Your task to perform on an android device: turn on the 24-hour format for clock Image 0: 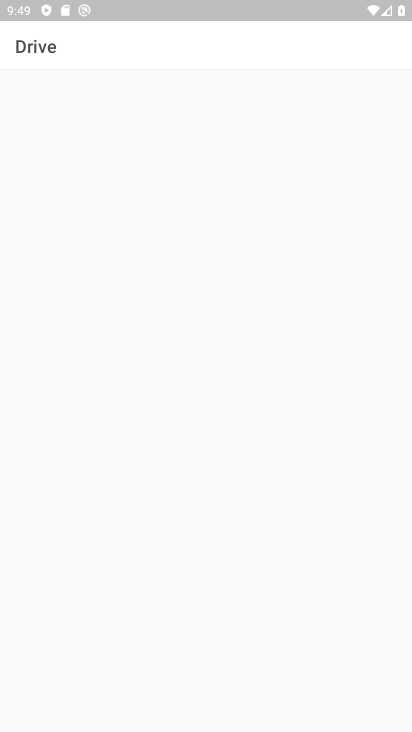
Step 0: press home button
Your task to perform on an android device: turn on the 24-hour format for clock Image 1: 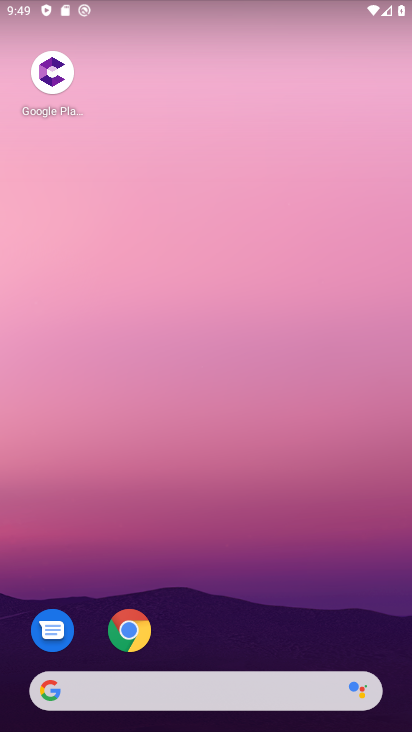
Step 1: drag from (236, 652) to (187, 126)
Your task to perform on an android device: turn on the 24-hour format for clock Image 2: 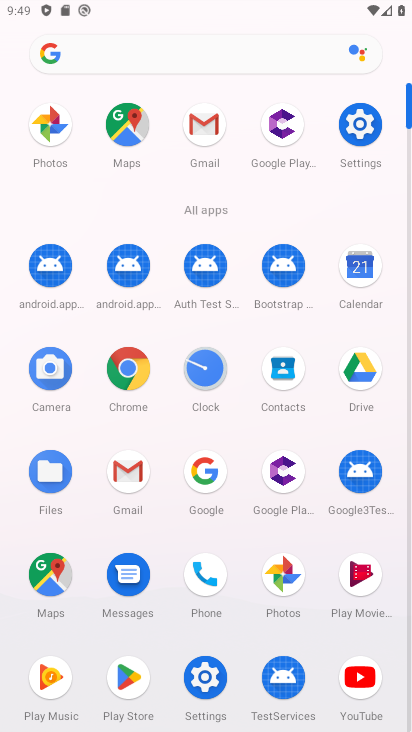
Step 2: click (216, 369)
Your task to perform on an android device: turn on the 24-hour format for clock Image 3: 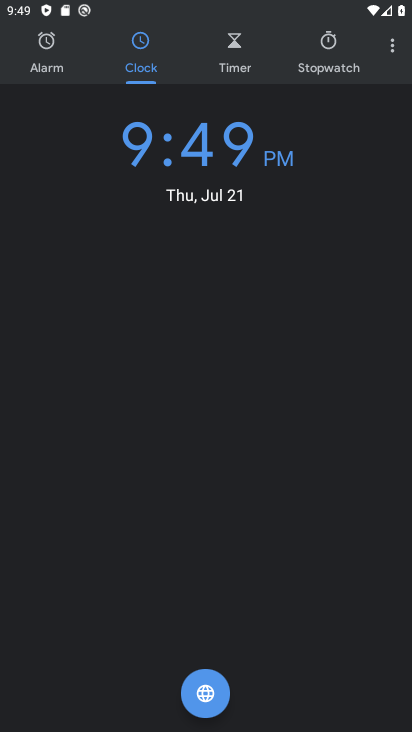
Step 3: click (389, 51)
Your task to perform on an android device: turn on the 24-hour format for clock Image 4: 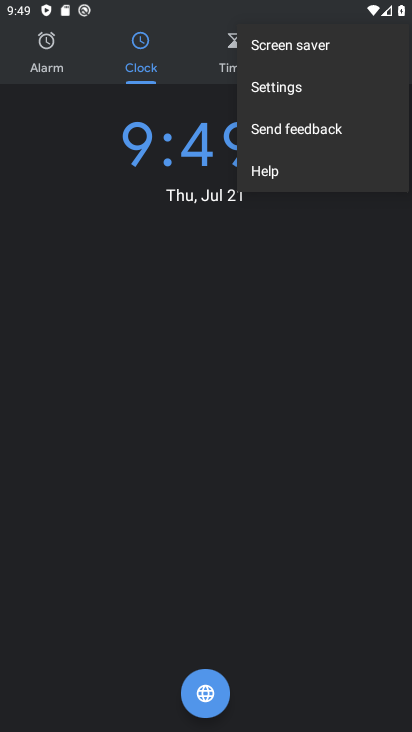
Step 4: click (292, 86)
Your task to perform on an android device: turn on the 24-hour format for clock Image 5: 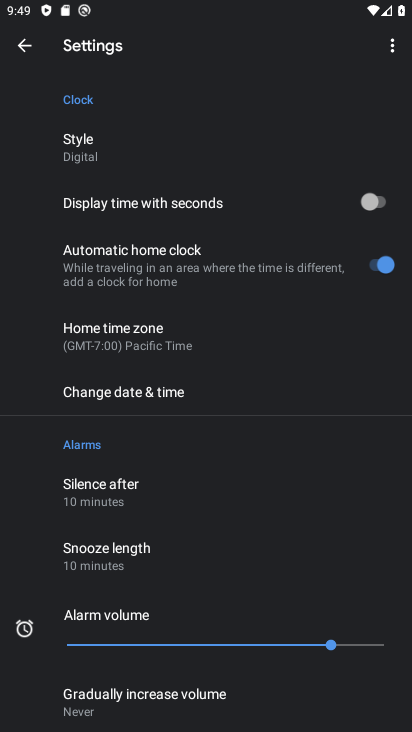
Step 5: drag from (206, 522) to (211, 136)
Your task to perform on an android device: turn on the 24-hour format for clock Image 6: 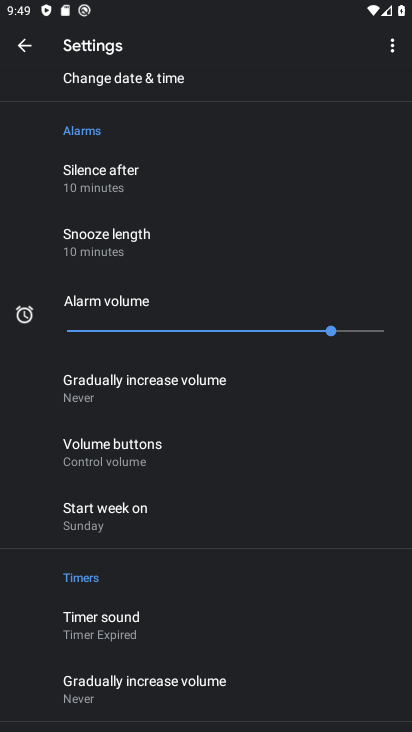
Step 6: click (121, 91)
Your task to perform on an android device: turn on the 24-hour format for clock Image 7: 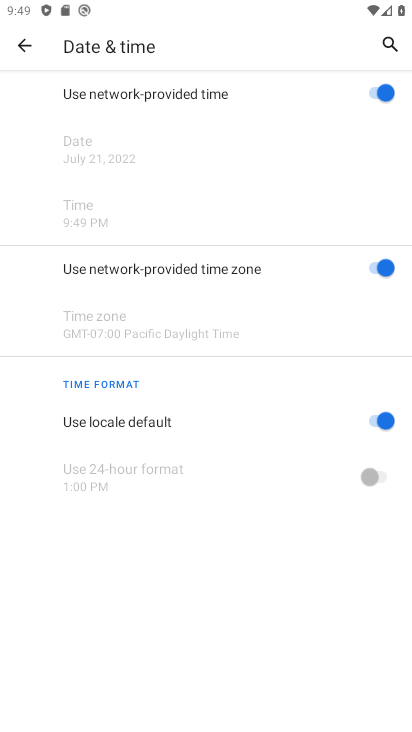
Step 7: click (387, 425)
Your task to perform on an android device: turn on the 24-hour format for clock Image 8: 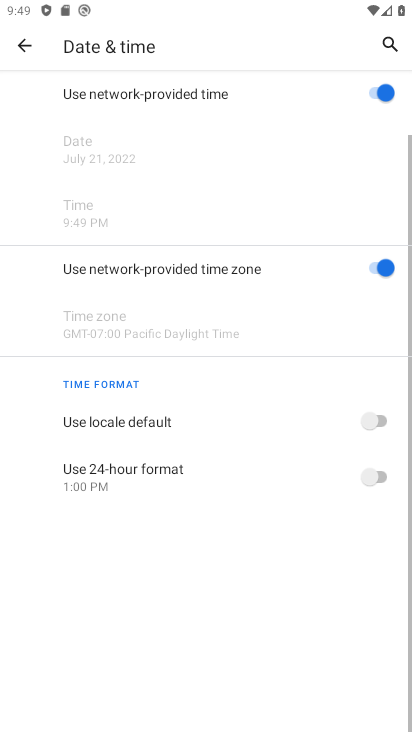
Step 8: click (378, 473)
Your task to perform on an android device: turn on the 24-hour format for clock Image 9: 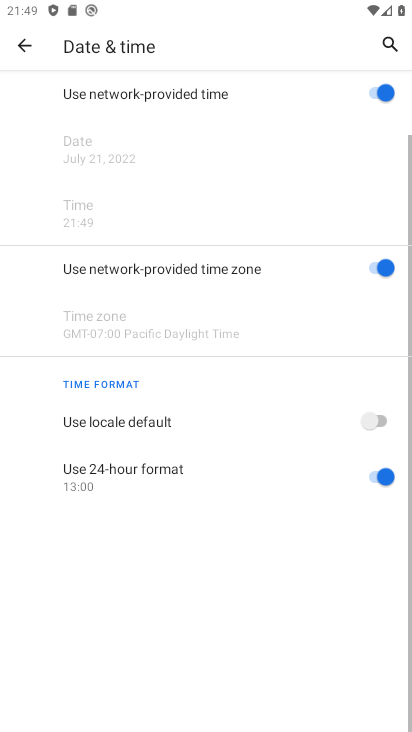
Step 9: task complete